Your task to perform on an android device: toggle notification dots Image 0: 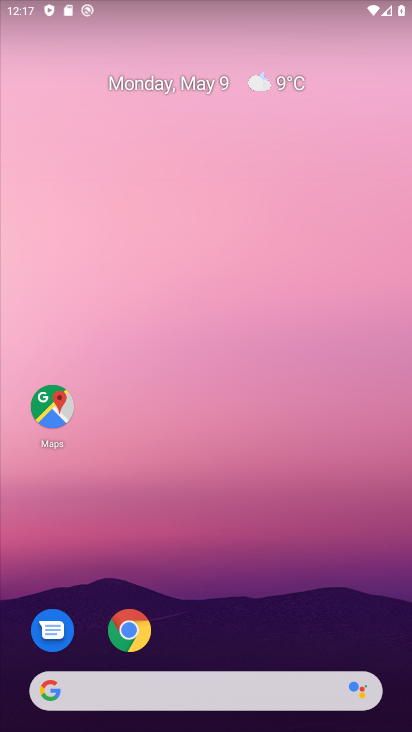
Step 0: drag from (288, 20) to (359, 0)
Your task to perform on an android device: toggle notification dots Image 1: 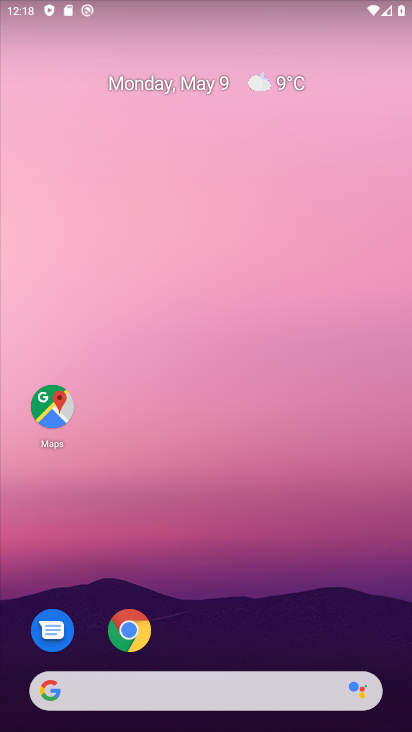
Step 1: drag from (298, 626) to (274, 67)
Your task to perform on an android device: toggle notification dots Image 2: 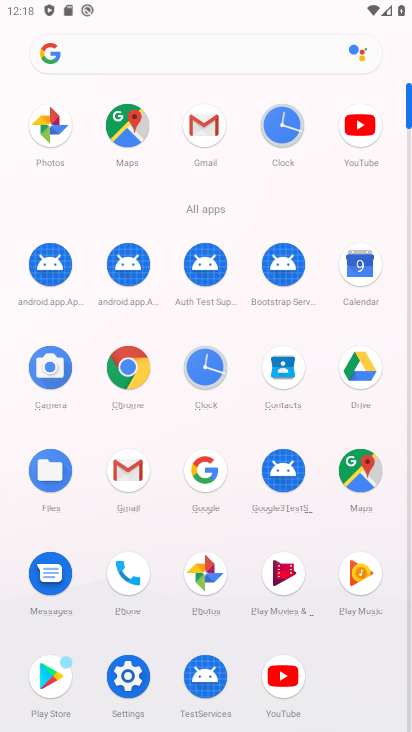
Step 2: drag from (235, 626) to (330, 164)
Your task to perform on an android device: toggle notification dots Image 3: 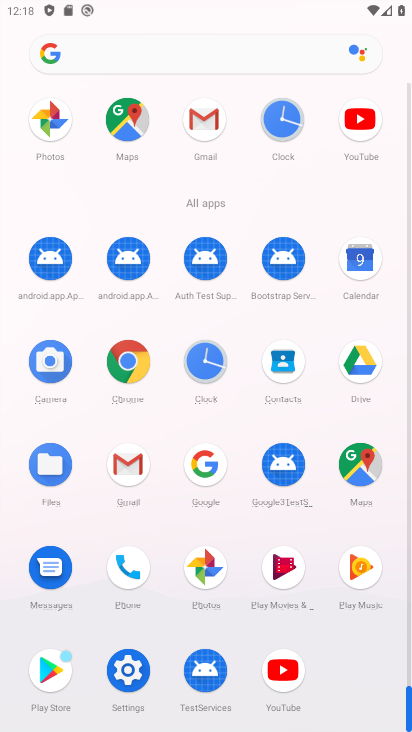
Step 3: click (130, 687)
Your task to perform on an android device: toggle notification dots Image 4: 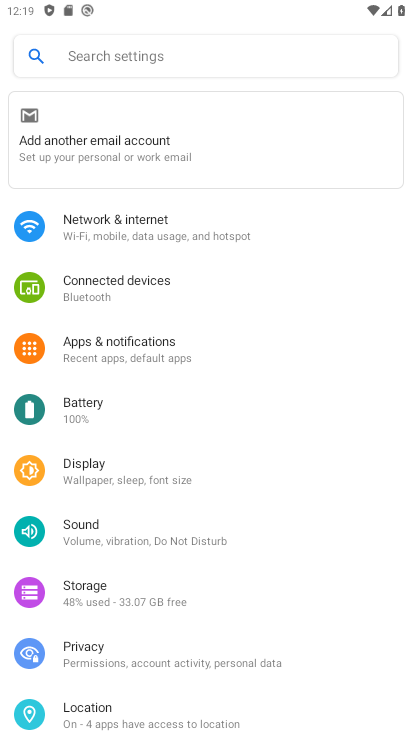
Step 4: drag from (137, 659) to (179, 384)
Your task to perform on an android device: toggle notification dots Image 5: 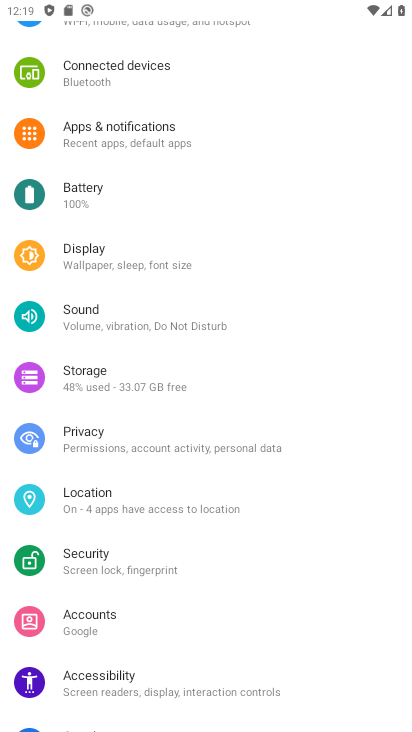
Step 5: click (106, 141)
Your task to perform on an android device: toggle notification dots Image 6: 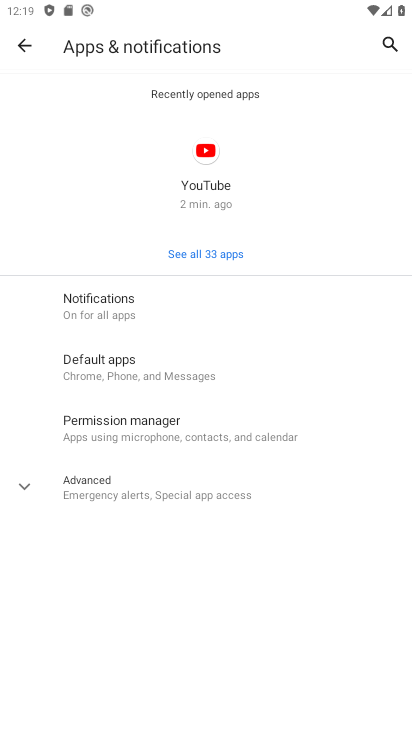
Step 6: click (119, 299)
Your task to perform on an android device: toggle notification dots Image 7: 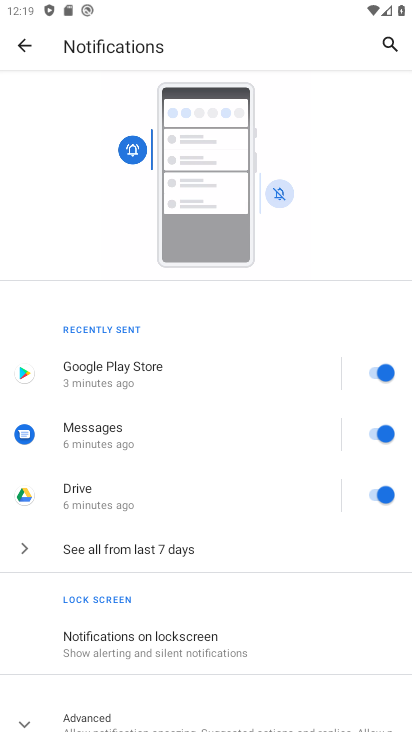
Step 7: drag from (231, 713) to (312, 338)
Your task to perform on an android device: toggle notification dots Image 8: 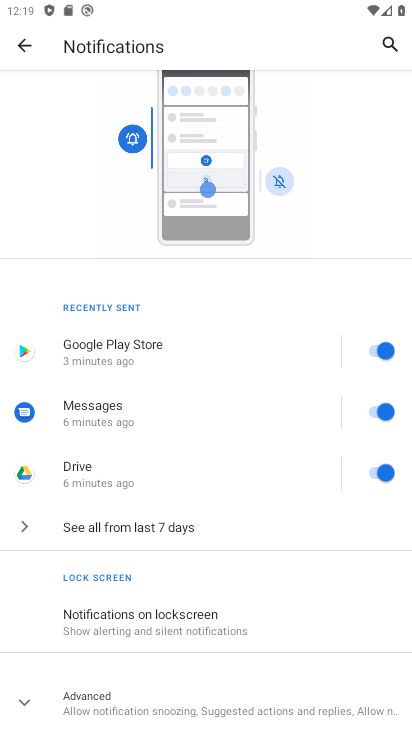
Step 8: click (88, 667)
Your task to perform on an android device: toggle notification dots Image 9: 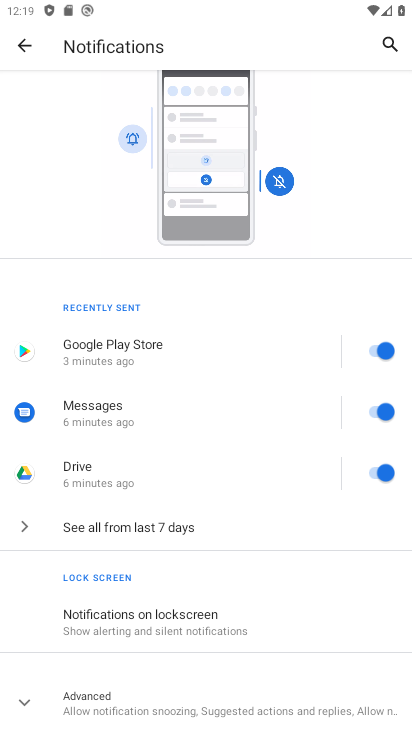
Step 9: click (88, 718)
Your task to perform on an android device: toggle notification dots Image 10: 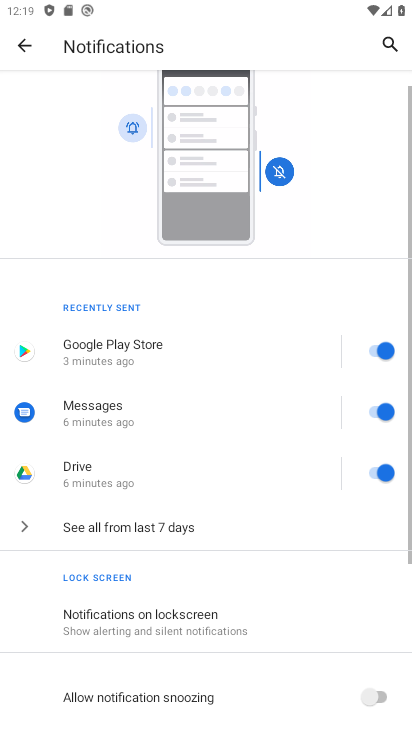
Step 10: drag from (150, 694) to (212, 223)
Your task to perform on an android device: toggle notification dots Image 11: 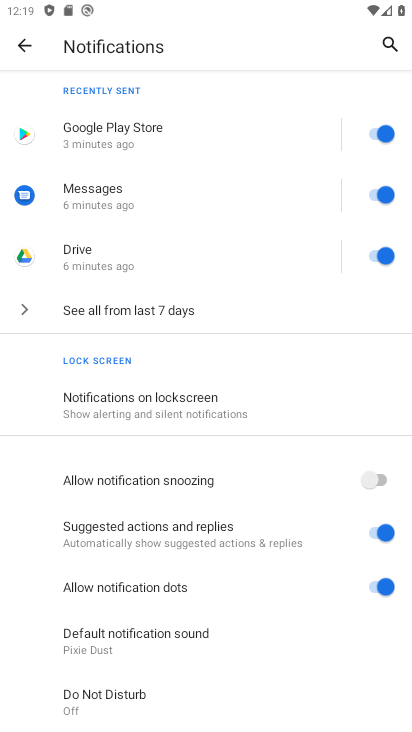
Step 11: drag from (180, 689) to (241, 368)
Your task to perform on an android device: toggle notification dots Image 12: 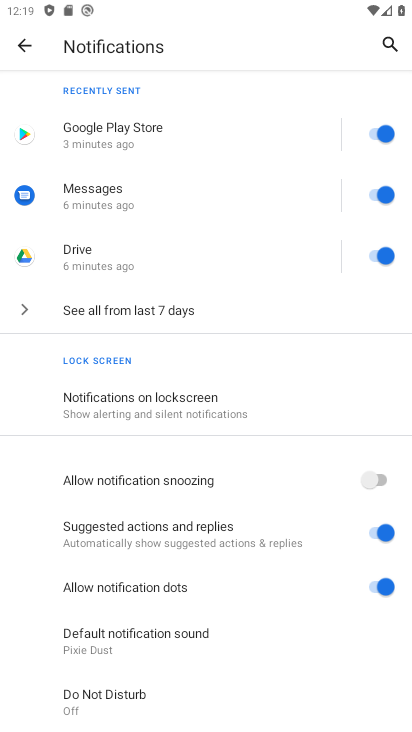
Step 12: click (372, 589)
Your task to perform on an android device: toggle notification dots Image 13: 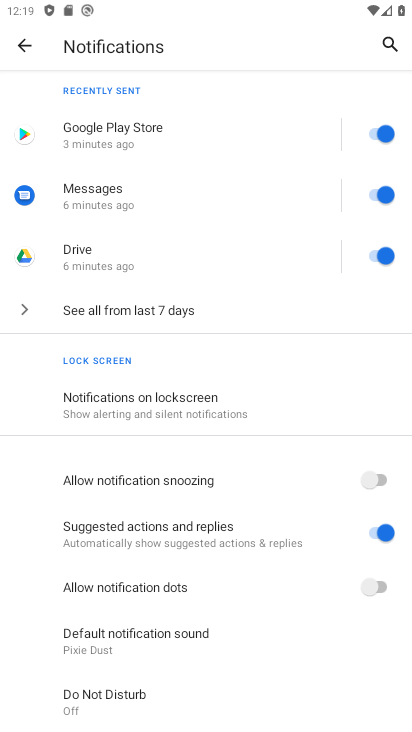
Step 13: task complete